Your task to perform on an android device: Is it going to rain today? Image 0: 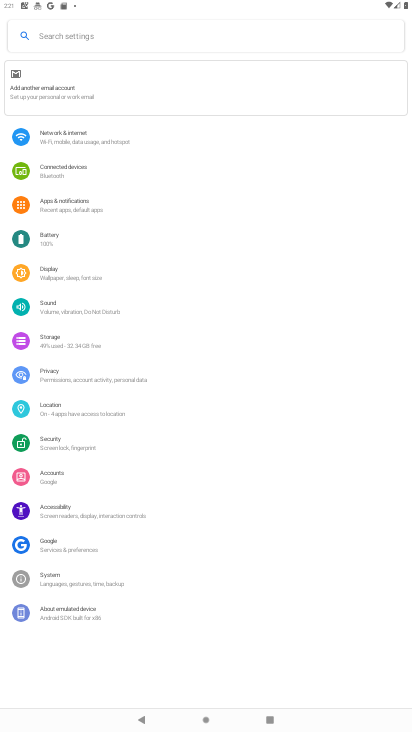
Step 0: press home button
Your task to perform on an android device: Is it going to rain today? Image 1: 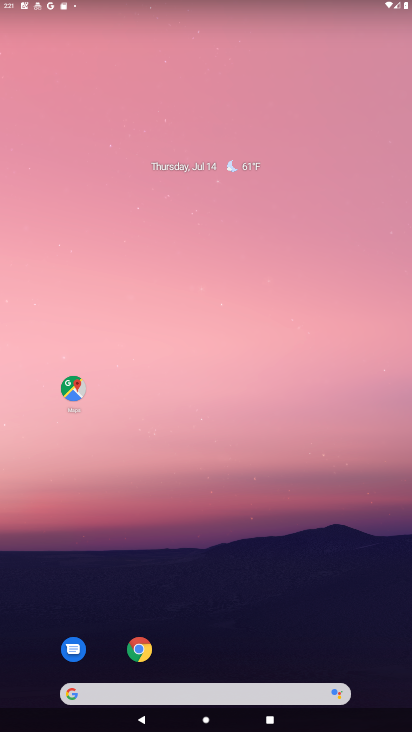
Step 1: drag from (233, 668) to (304, 7)
Your task to perform on an android device: Is it going to rain today? Image 2: 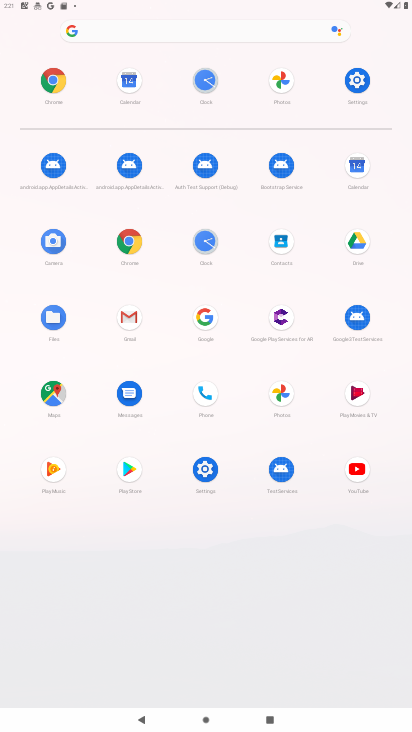
Step 2: click (121, 251)
Your task to perform on an android device: Is it going to rain today? Image 3: 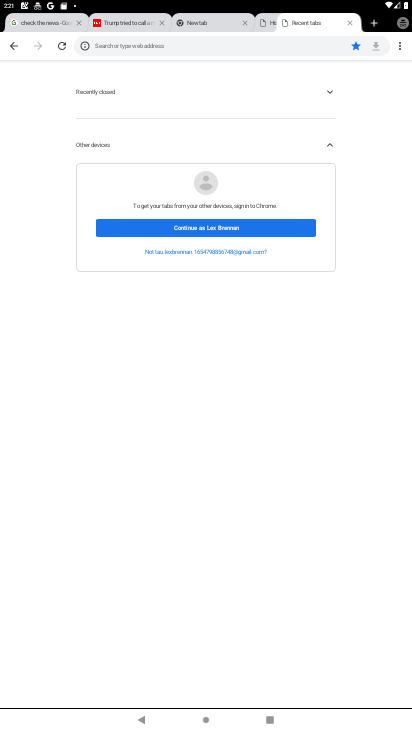
Step 3: press home button
Your task to perform on an android device: Is it going to rain today? Image 4: 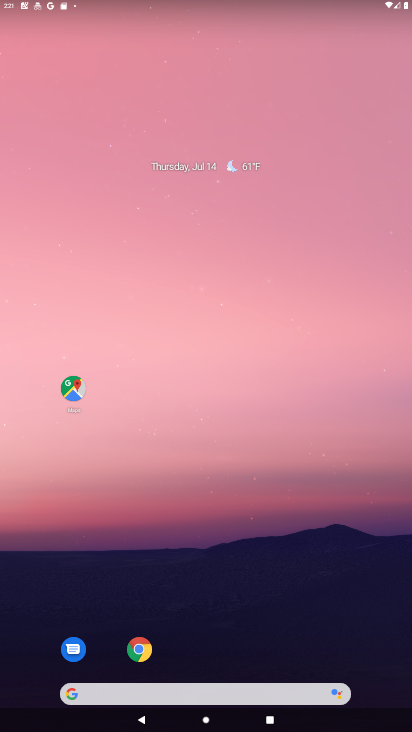
Step 4: click (244, 268)
Your task to perform on an android device: Is it going to rain today? Image 5: 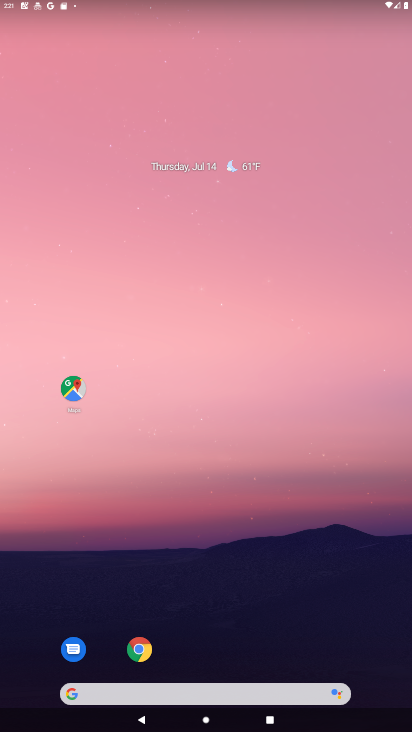
Step 5: drag from (38, 215) to (405, 154)
Your task to perform on an android device: Is it going to rain today? Image 6: 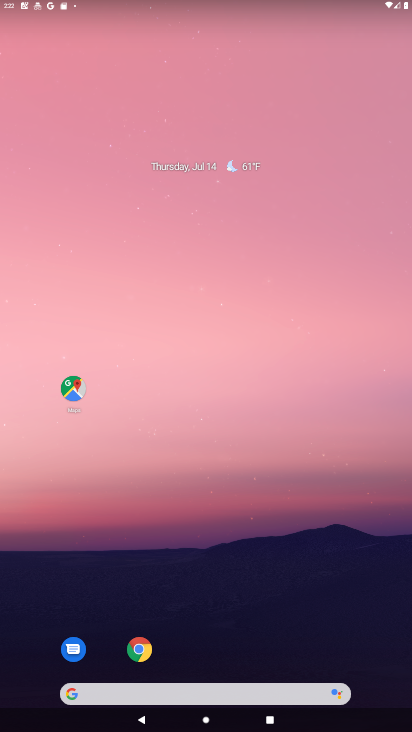
Step 6: drag from (8, 249) to (404, 152)
Your task to perform on an android device: Is it going to rain today? Image 7: 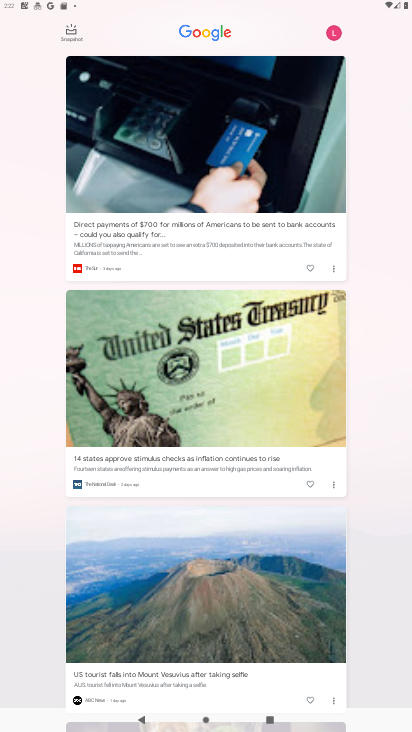
Step 7: drag from (175, 29) to (171, 356)
Your task to perform on an android device: Is it going to rain today? Image 8: 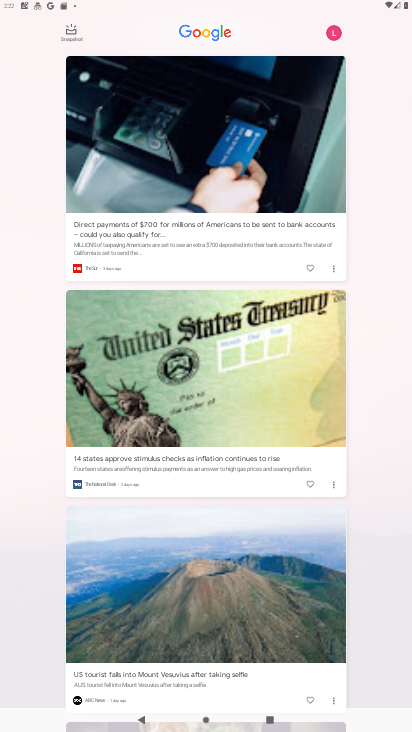
Step 8: press home button
Your task to perform on an android device: Is it going to rain today? Image 9: 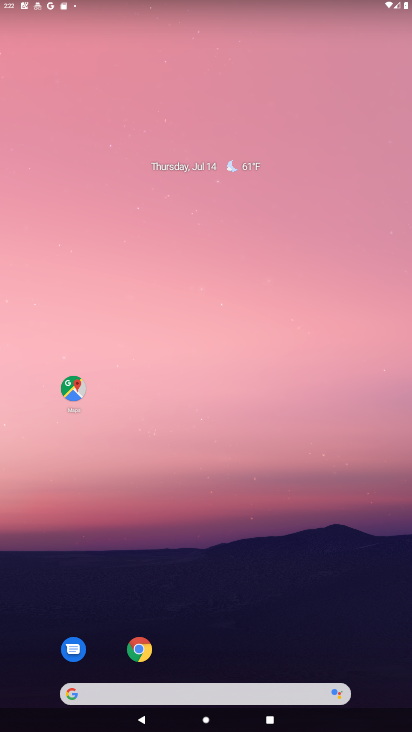
Step 9: drag from (244, 669) to (286, 146)
Your task to perform on an android device: Is it going to rain today? Image 10: 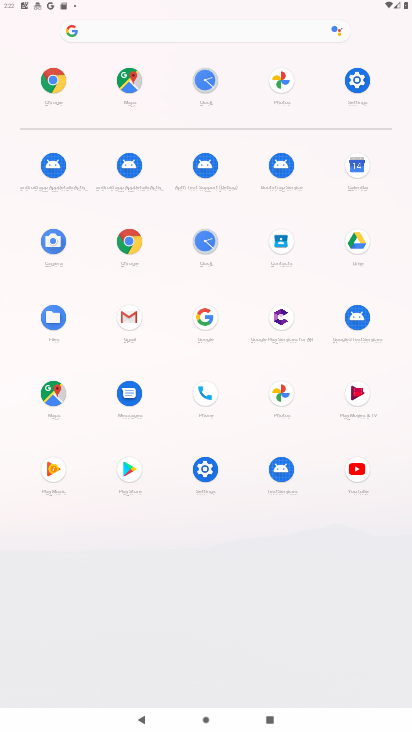
Step 10: click (124, 240)
Your task to perform on an android device: Is it going to rain today? Image 11: 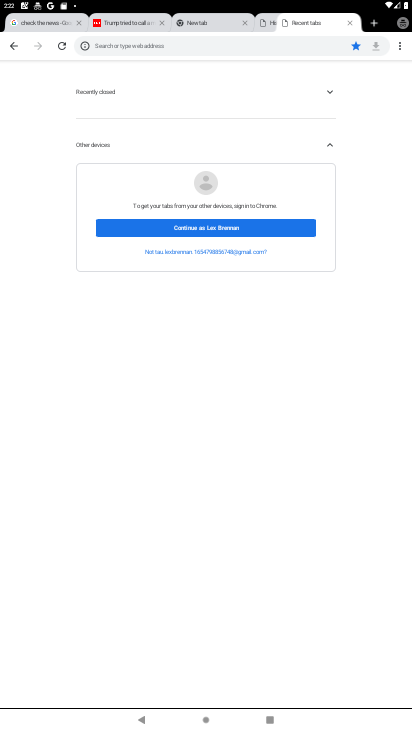
Step 11: click (149, 45)
Your task to perform on an android device: Is it going to rain today? Image 12: 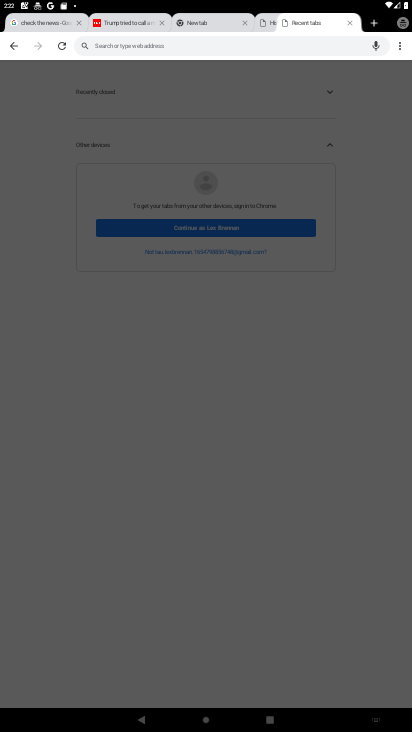
Step 12: type "going to rain today"
Your task to perform on an android device: Is it going to rain today? Image 13: 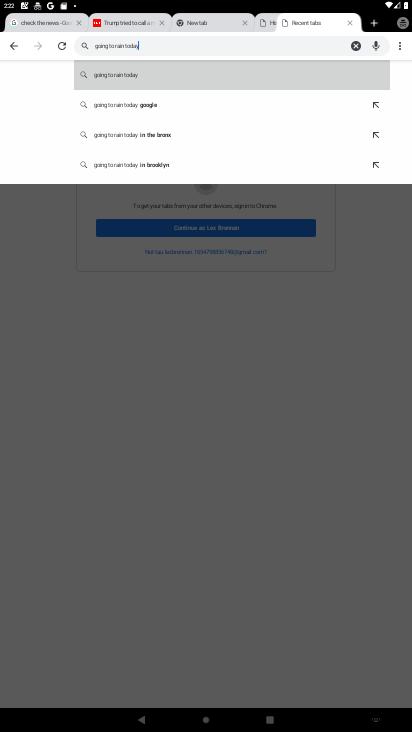
Step 13: type "'"
Your task to perform on an android device: Is it going to rain today? Image 14: 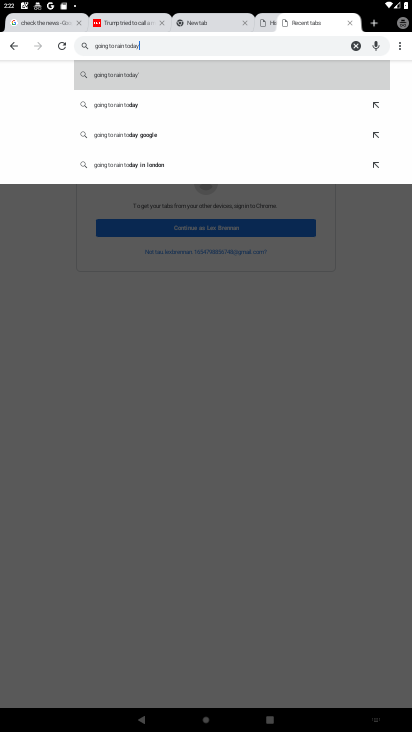
Step 14: click (269, 85)
Your task to perform on an android device: Is it going to rain today? Image 15: 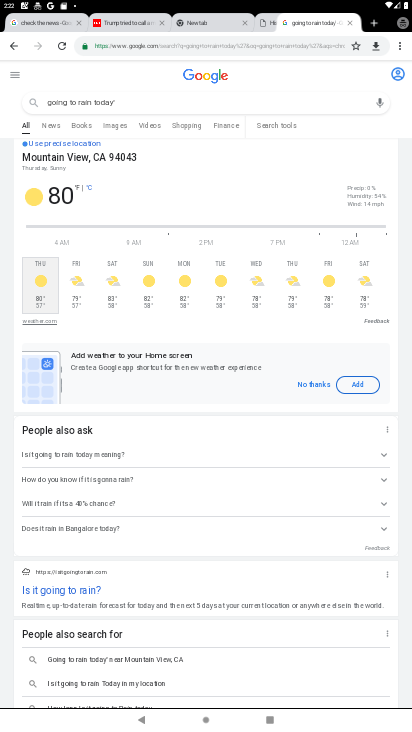
Step 15: click (133, 70)
Your task to perform on an android device: Is it going to rain today? Image 16: 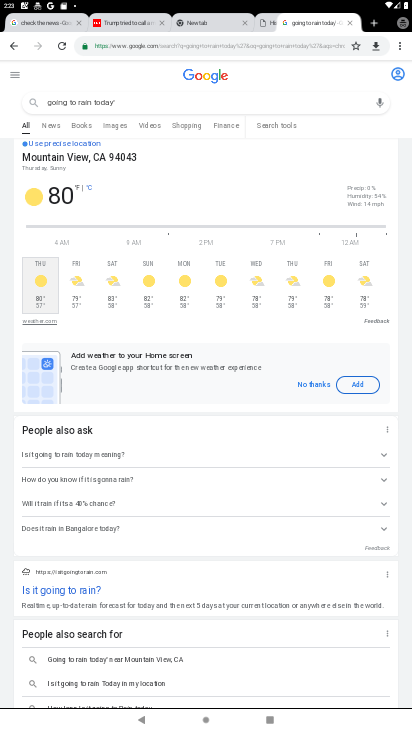
Step 16: task complete